Your task to perform on an android device: turn on showing notifications on the lock screen Image 0: 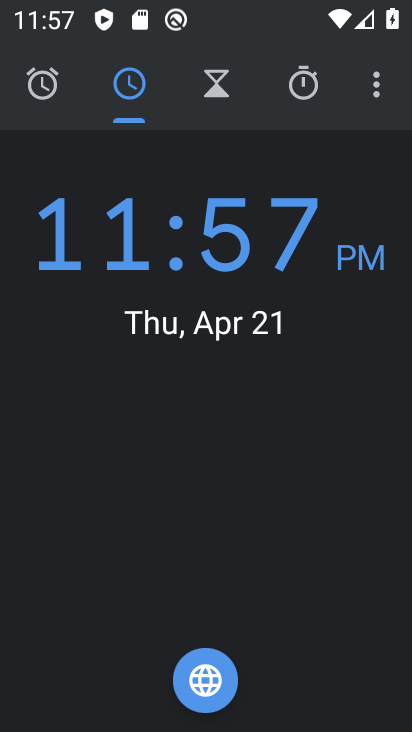
Step 0: press home button
Your task to perform on an android device: turn on showing notifications on the lock screen Image 1: 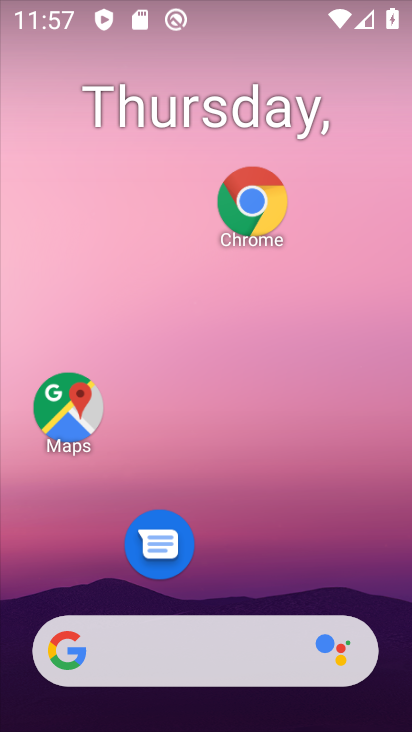
Step 1: drag from (205, 606) to (298, 15)
Your task to perform on an android device: turn on showing notifications on the lock screen Image 2: 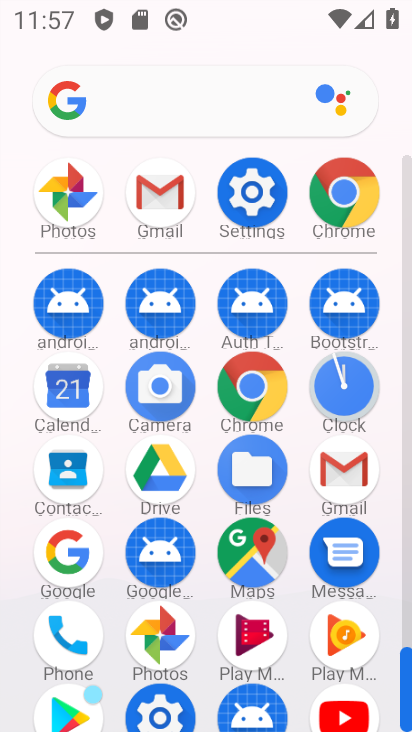
Step 2: click (244, 206)
Your task to perform on an android device: turn on showing notifications on the lock screen Image 3: 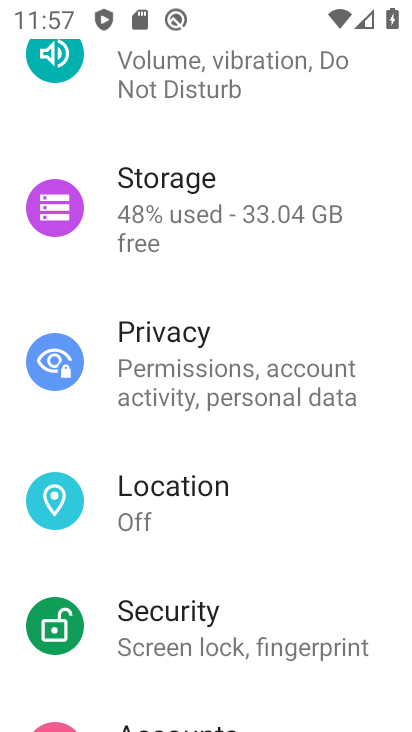
Step 3: drag from (253, 483) to (211, 241)
Your task to perform on an android device: turn on showing notifications on the lock screen Image 4: 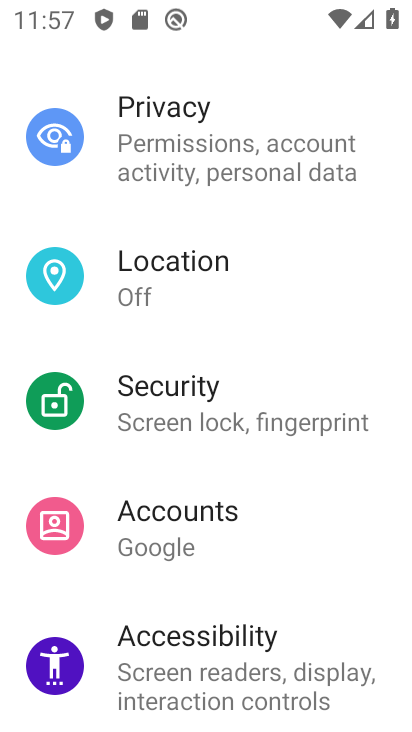
Step 4: drag from (225, 320) to (238, 636)
Your task to perform on an android device: turn on showing notifications on the lock screen Image 5: 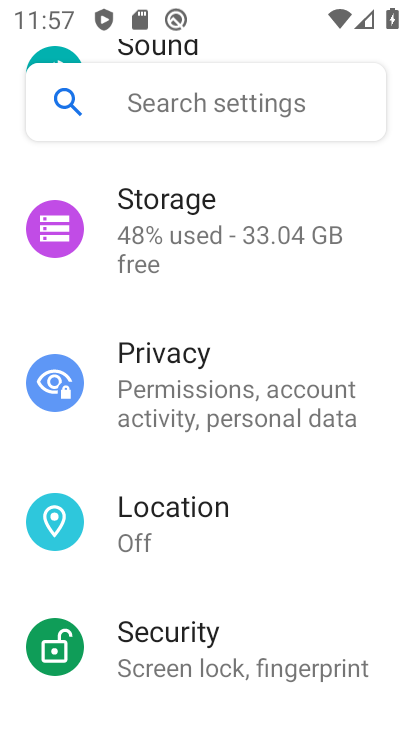
Step 5: drag from (218, 197) to (235, 558)
Your task to perform on an android device: turn on showing notifications on the lock screen Image 6: 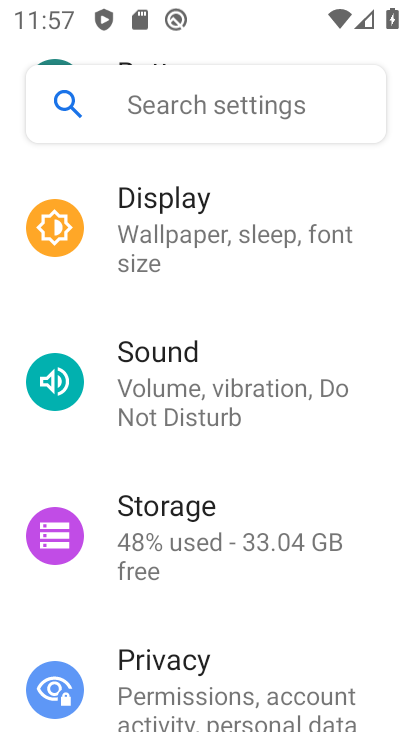
Step 6: drag from (250, 254) to (242, 644)
Your task to perform on an android device: turn on showing notifications on the lock screen Image 7: 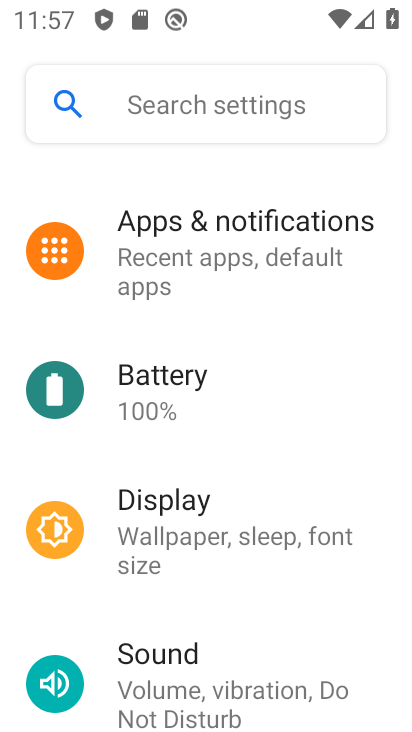
Step 7: click (235, 269)
Your task to perform on an android device: turn on showing notifications on the lock screen Image 8: 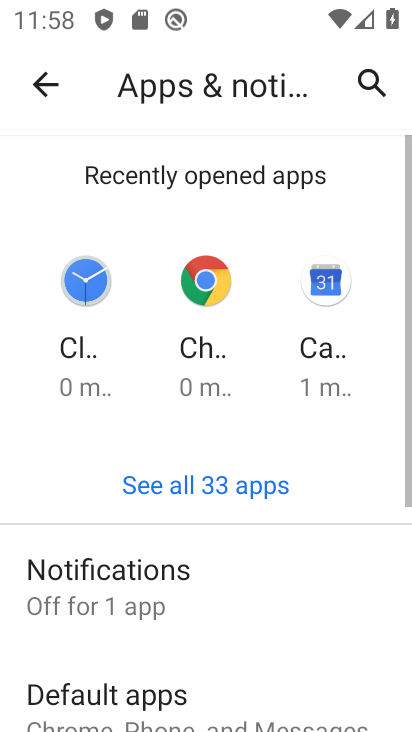
Step 8: click (187, 561)
Your task to perform on an android device: turn on showing notifications on the lock screen Image 9: 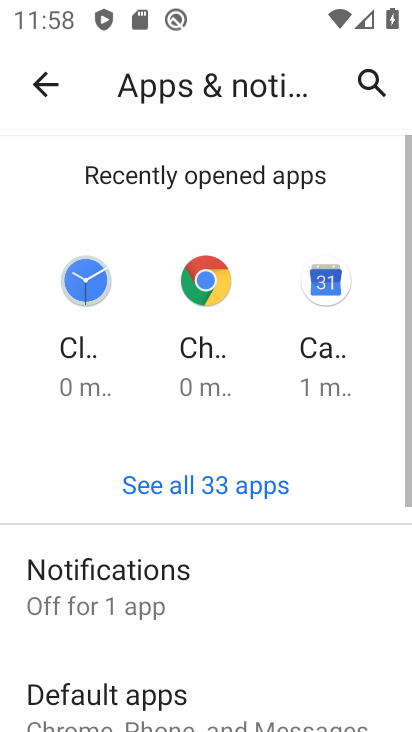
Step 9: drag from (210, 612) to (208, 134)
Your task to perform on an android device: turn on showing notifications on the lock screen Image 10: 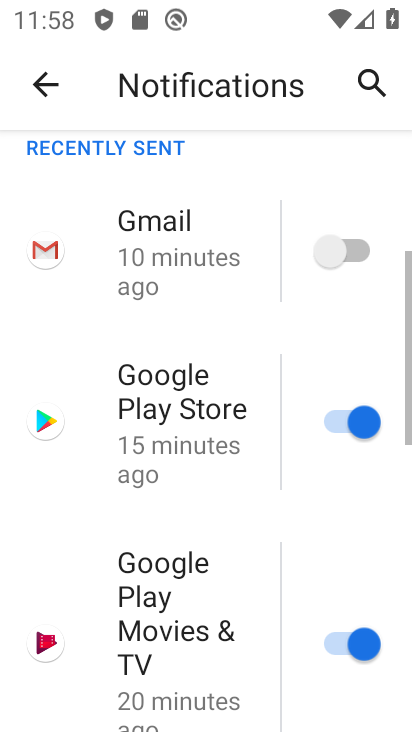
Step 10: drag from (185, 620) to (193, 0)
Your task to perform on an android device: turn on showing notifications on the lock screen Image 11: 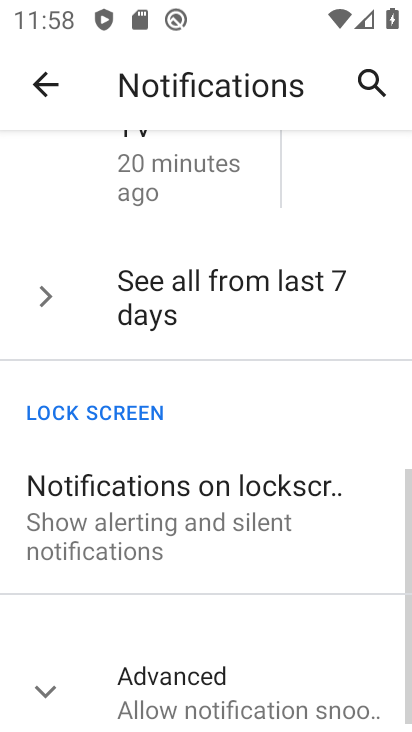
Step 11: click (241, 554)
Your task to perform on an android device: turn on showing notifications on the lock screen Image 12: 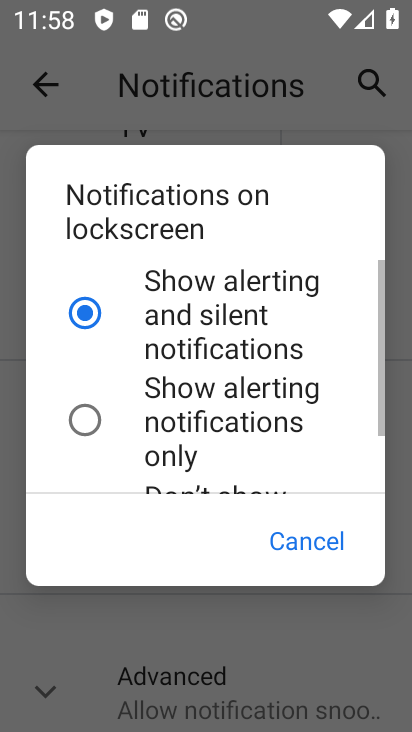
Step 12: drag from (119, 457) to (105, 159)
Your task to perform on an android device: turn on showing notifications on the lock screen Image 13: 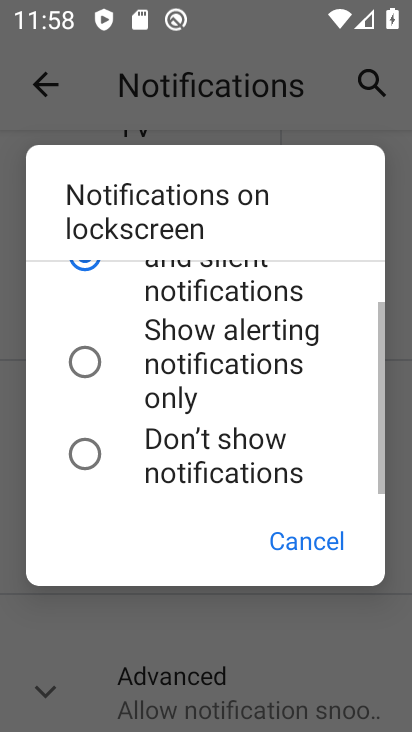
Step 13: click (151, 276)
Your task to perform on an android device: turn on showing notifications on the lock screen Image 14: 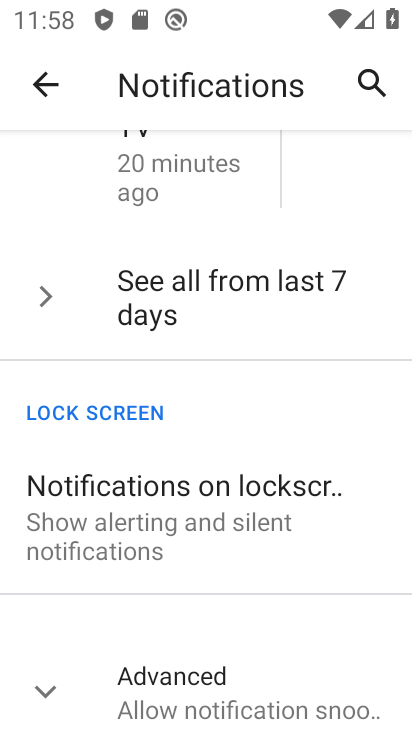
Step 14: task complete